Your task to perform on an android device: What's the weather today? Image 0: 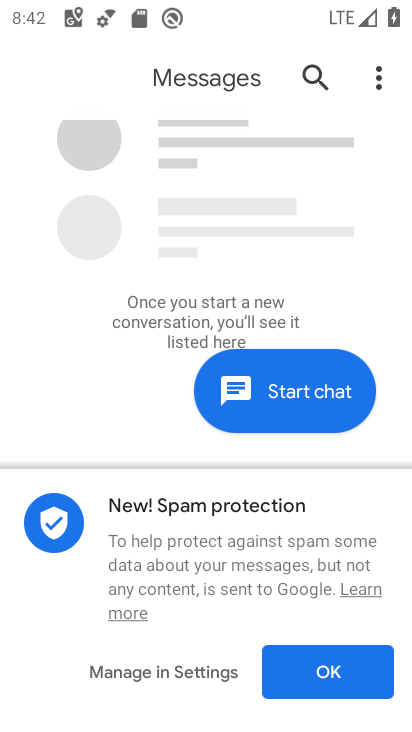
Step 0: press home button
Your task to perform on an android device: What's the weather today? Image 1: 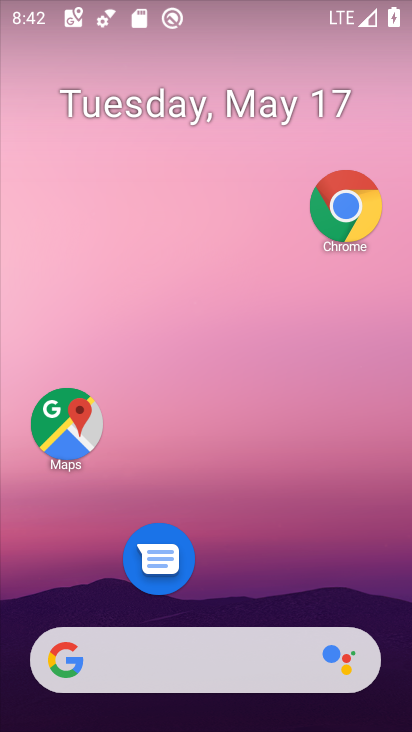
Step 1: drag from (279, 679) to (338, 198)
Your task to perform on an android device: What's the weather today? Image 2: 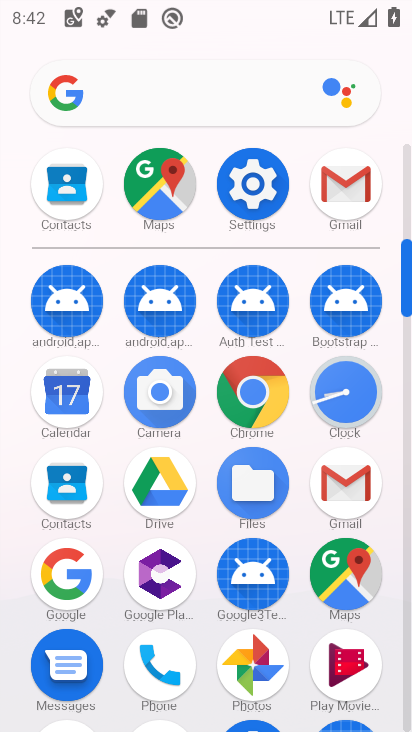
Step 2: click (83, 575)
Your task to perform on an android device: What's the weather today? Image 3: 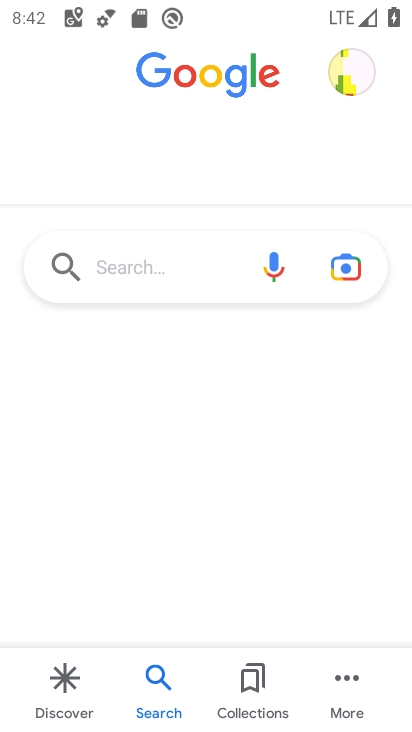
Step 3: click (170, 282)
Your task to perform on an android device: What's the weather today? Image 4: 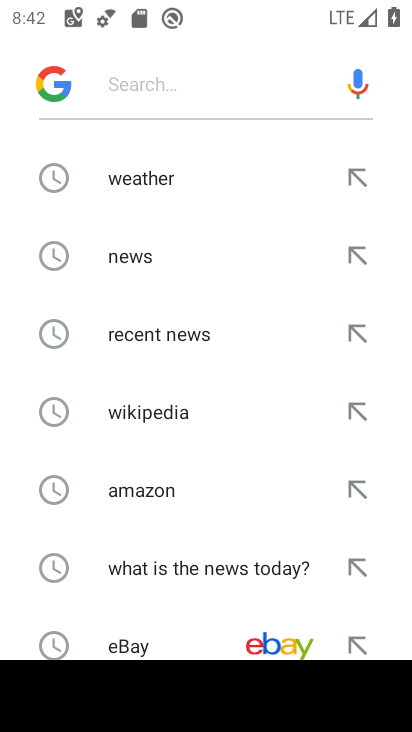
Step 4: click (209, 167)
Your task to perform on an android device: What's the weather today? Image 5: 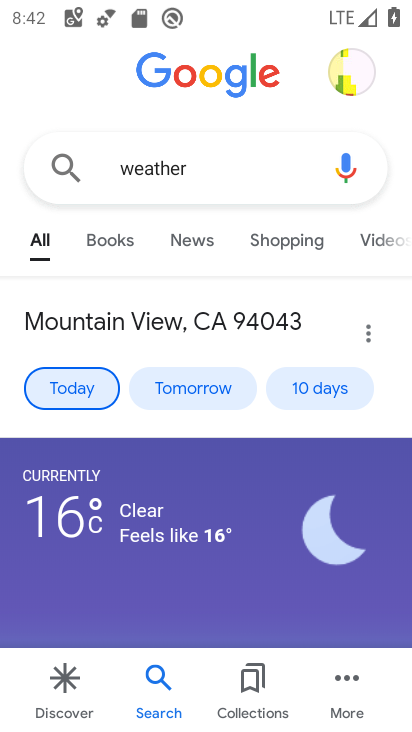
Step 5: task complete